Your task to perform on an android device: Open calendar and show me the second week of next month Image 0: 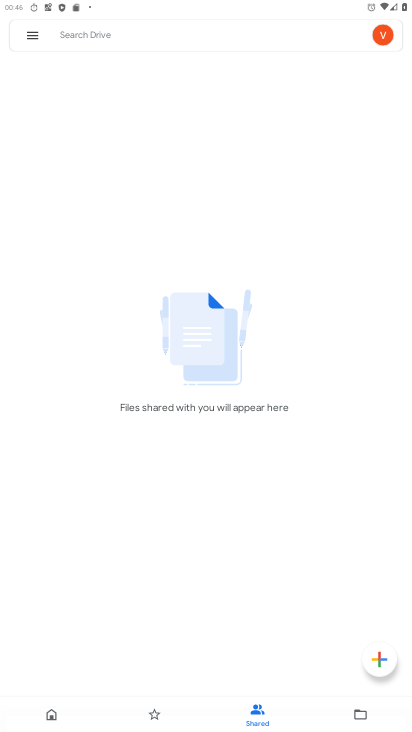
Step 0: press home button
Your task to perform on an android device: Open calendar and show me the second week of next month Image 1: 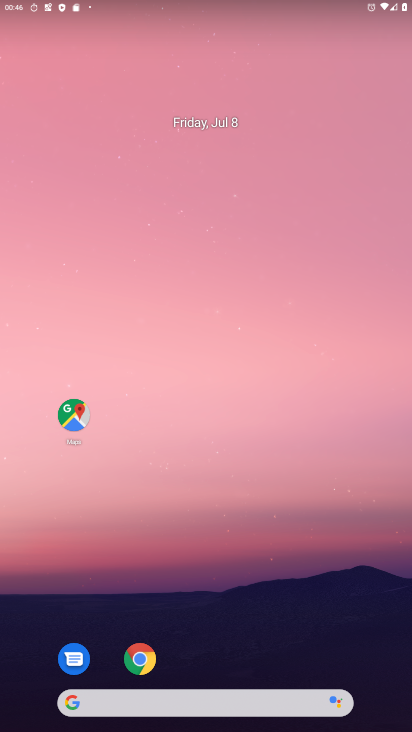
Step 1: click (231, 109)
Your task to perform on an android device: Open calendar and show me the second week of next month Image 2: 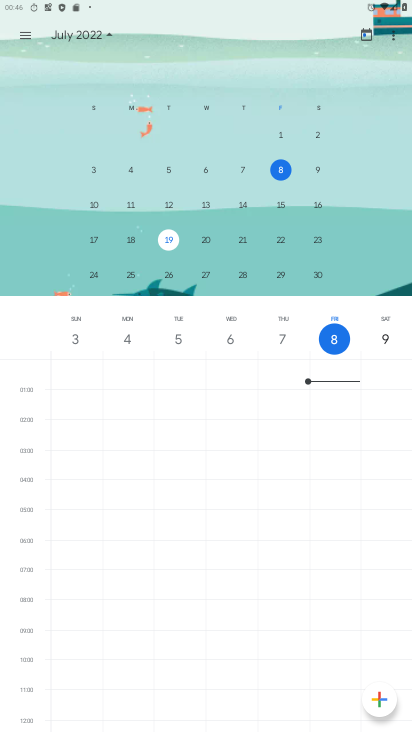
Step 2: click (109, 36)
Your task to perform on an android device: Open calendar and show me the second week of next month Image 3: 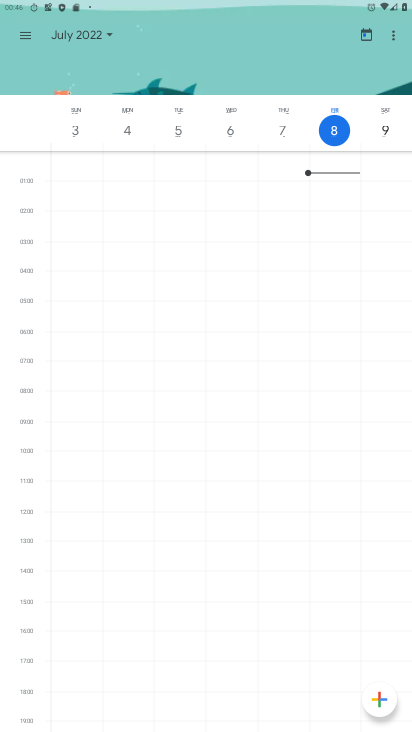
Step 3: click (109, 36)
Your task to perform on an android device: Open calendar and show me the second week of next month Image 4: 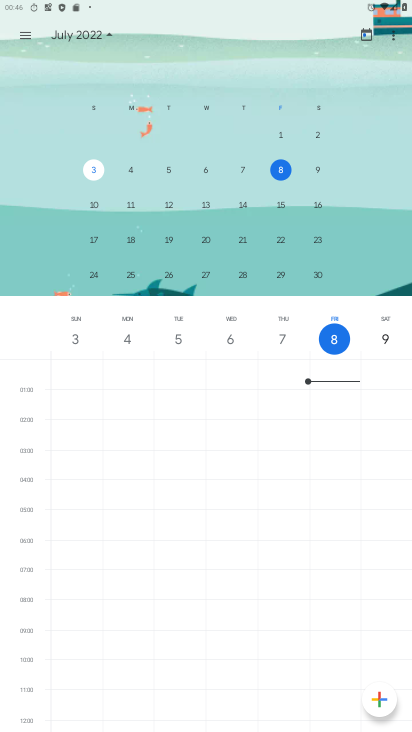
Step 4: drag from (384, 232) to (82, 219)
Your task to perform on an android device: Open calendar and show me the second week of next month Image 5: 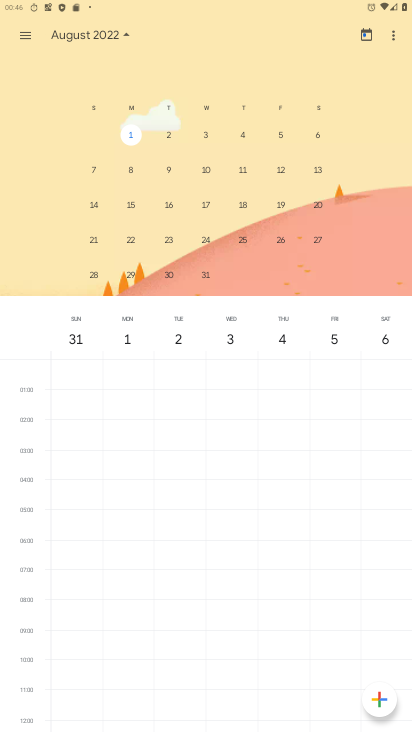
Step 5: click (290, 173)
Your task to perform on an android device: Open calendar and show me the second week of next month Image 6: 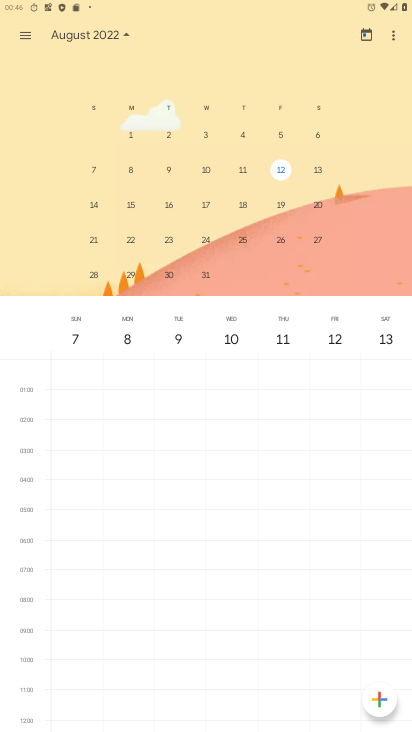
Step 6: task complete